Your task to perform on an android device: Open ESPN.com Image 0: 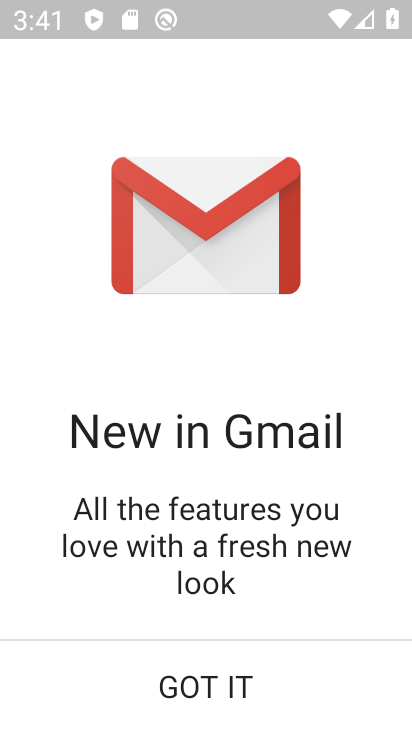
Step 0: press home button
Your task to perform on an android device: Open ESPN.com Image 1: 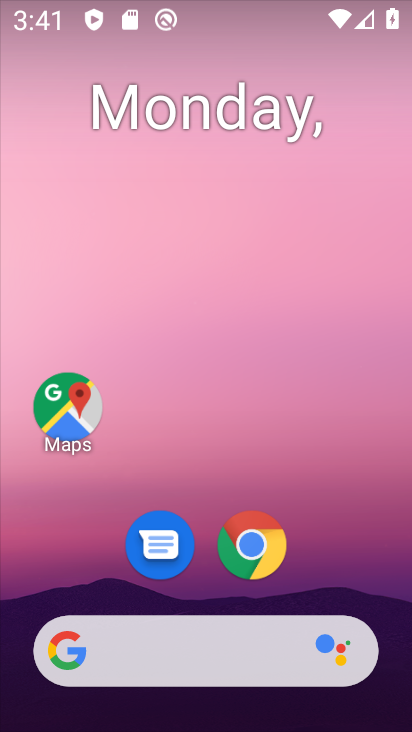
Step 1: click (279, 551)
Your task to perform on an android device: Open ESPN.com Image 2: 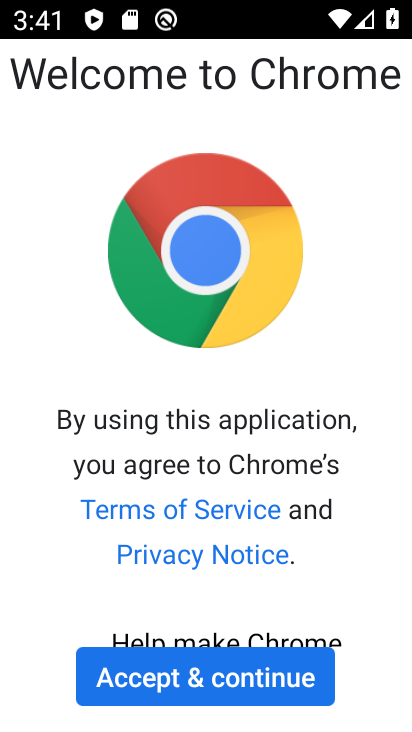
Step 2: click (292, 705)
Your task to perform on an android device: Open ESPN.com Image 3: 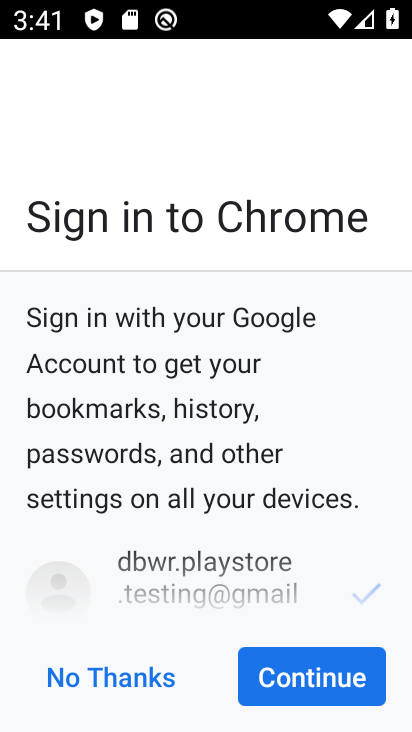
Step 3: click (292, 696)
Your task to perform on an android device: Open ESPN.com Image 4: 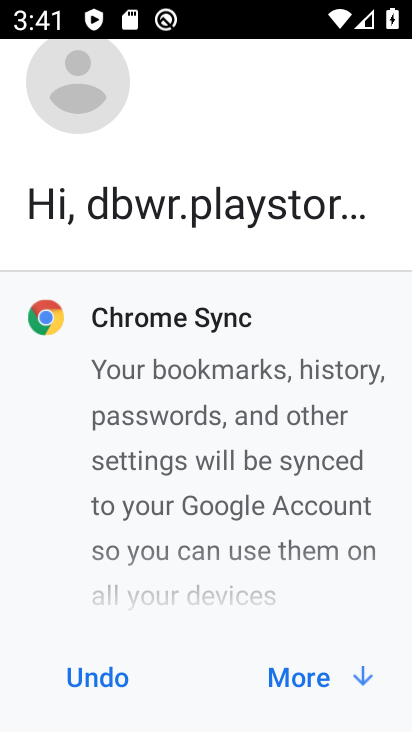
Step 4: click (290, 685)
Your task to perform on an android device: Open ESPN.com Image 5: 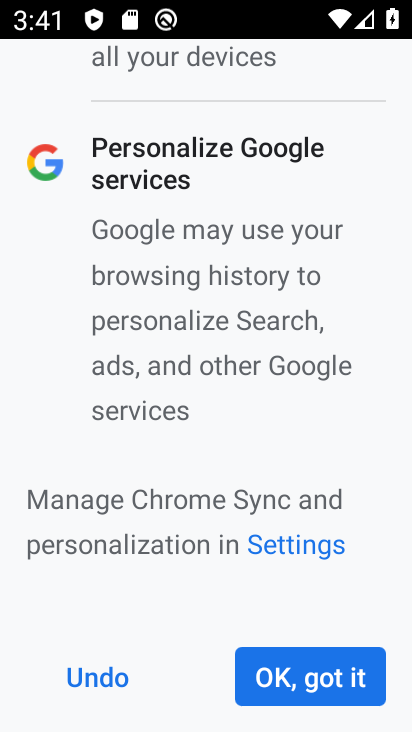
Step 5: click (319, 703)
Your task to perform on an android device: Open ESPN.com Image 6: 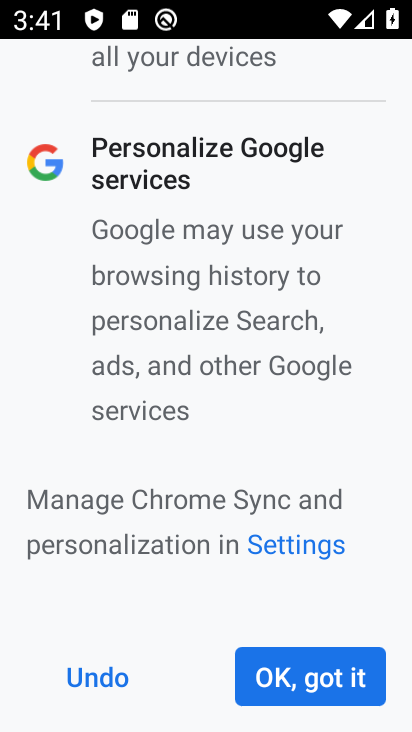
Step 6: click (319, 703)
Your task to perform on an android device: Open ESPN.com Image 7: 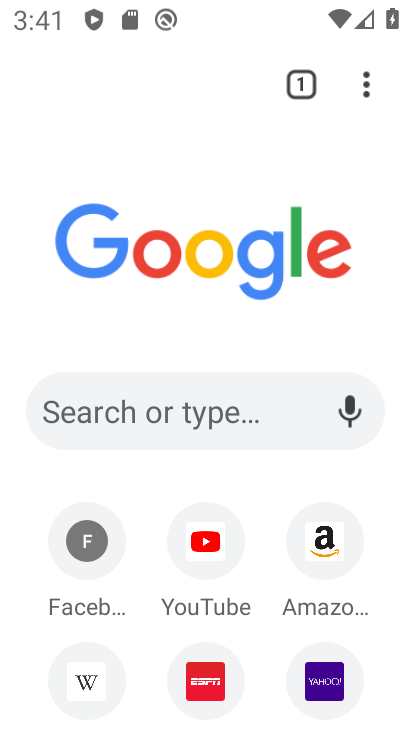
Step 7: click (208, 664)
Your task to perform on an android device: Open ESPN.com Image 8: 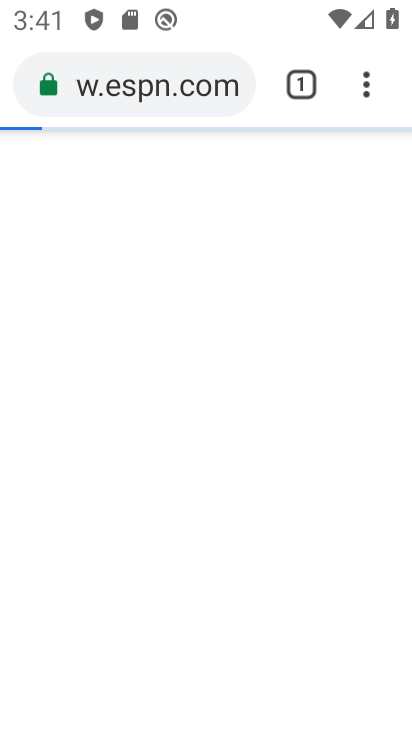
Step 8: task complete